Your task to perform on an android device: turn on airplane mode Image 0: 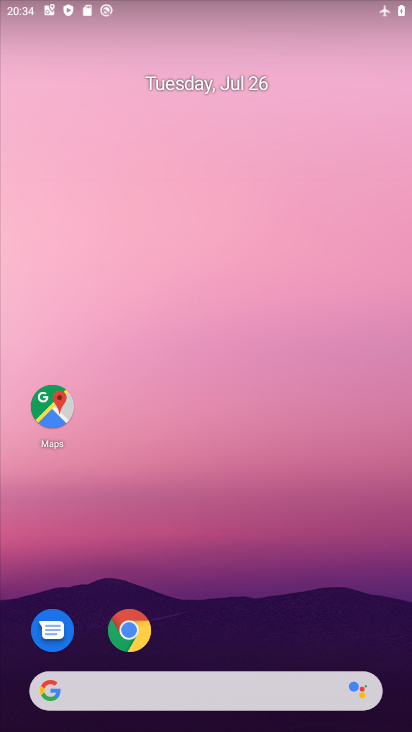
Step 0: drag from (249, 634) to (260, 69)
Your task to perform on an android device: turn on airplane mode Image 1: 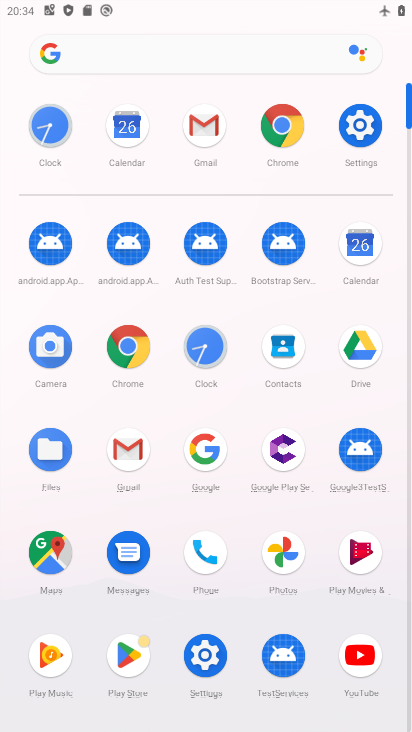
Step 1: click (196, 672)
Your task to perform on an android device: turn on airplane mode Image 2: 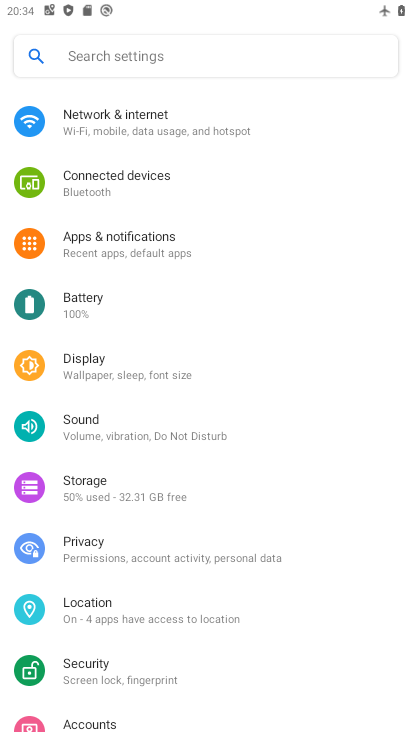
Step 2: click (196, 113)
Your task to perform on an android device: turn on airplane mode Image 3: 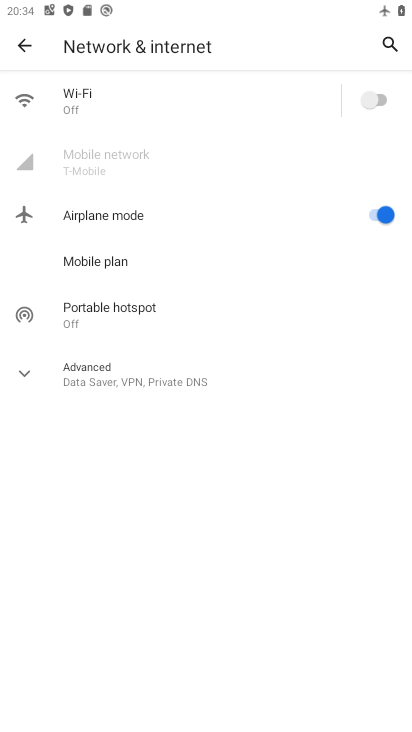
Step 3: click (365, 223)
Your task to perform on an android device: turn on airplane mode Image 4: 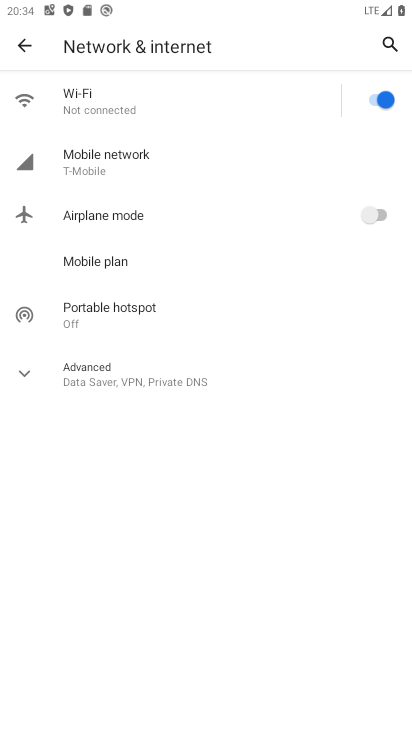
Step 4: task complete